Your task to perform on an android device: What's on my calendar tomorrow? Image 0: 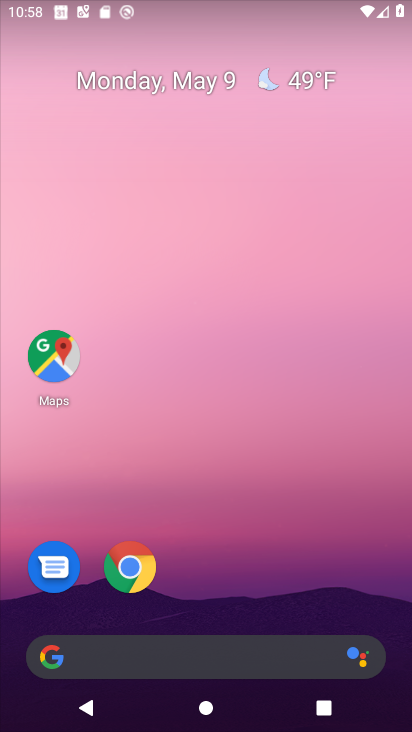
Step 0: drag from (160, 637) to (255, 204)
Your task to perform on an android device: What's on my calendar tomorrow? Image 1: 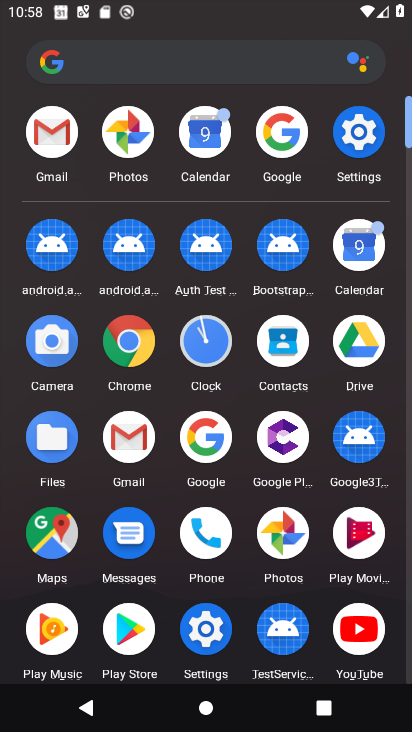
Step 1: click (362, 253)
Your task to perform on an android device: What's on my calendar tomorrow? Image 2: 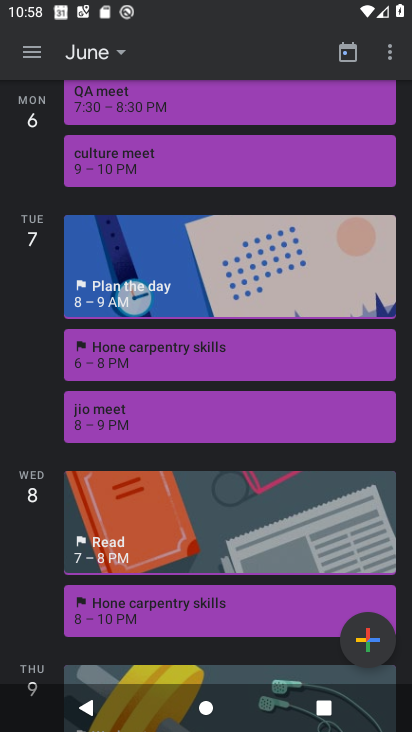
Step 2: click (93, 51)
Your task to perform on an android device: What's on my calendar tomorrow? Image 3: 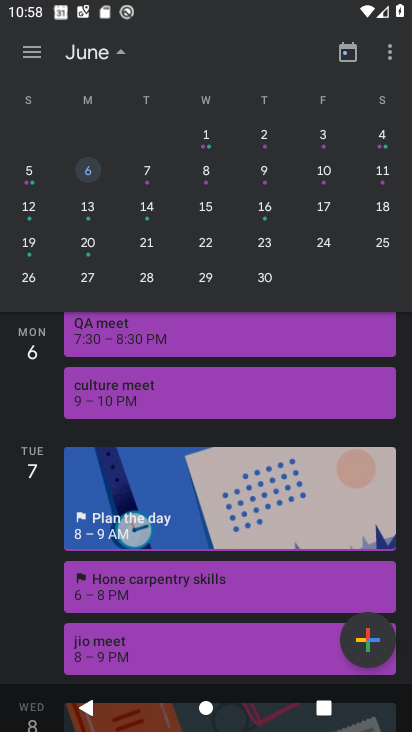
Step 3: drag from (72, 199) to (250, 209)
Your task to perform on an android device: What's on my calendar tomorrow? Image 4: 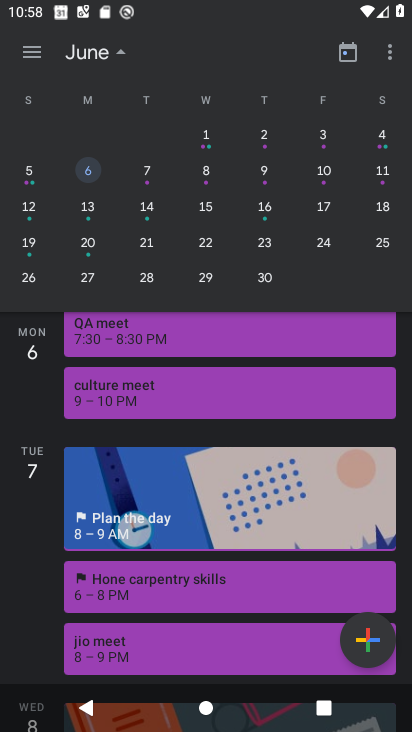
Step 4: drag from (51, 247) to (287, 253)
Your task to perform on an android device: What's on my calendar tomorrow? Image 5: 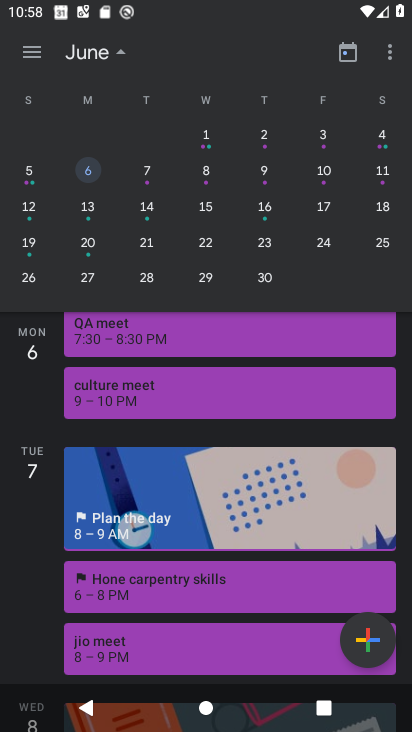
Step 5: drag from (47, 216) to (366, 236)
Your task to perform on an android device: What's on my calendar tomorrow? Image 6: 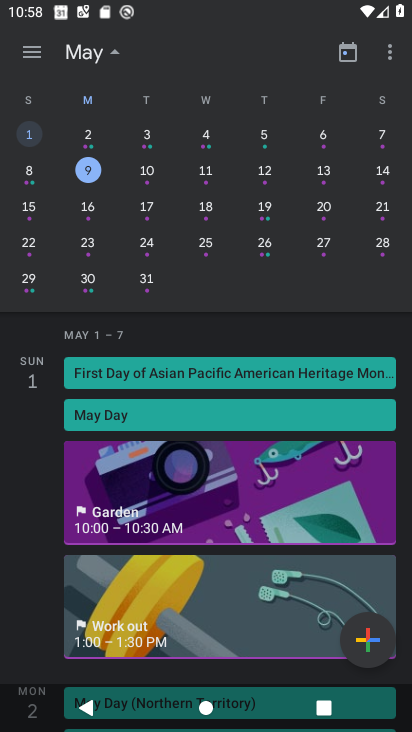
Step 6: click (210, 176)
Your task to perform on an android device: What's on my calendar tomorrow? Image 7: 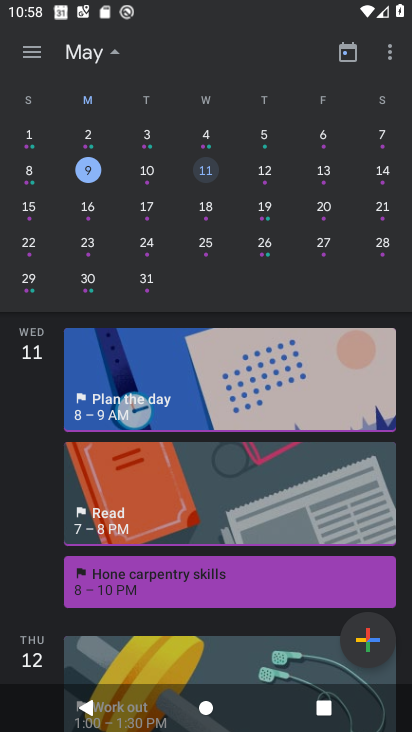
Step 7: drag from (191, 390) to (154, 664)
Your task to perform on an android device: What's on my calendar tomorrow? Image 8: 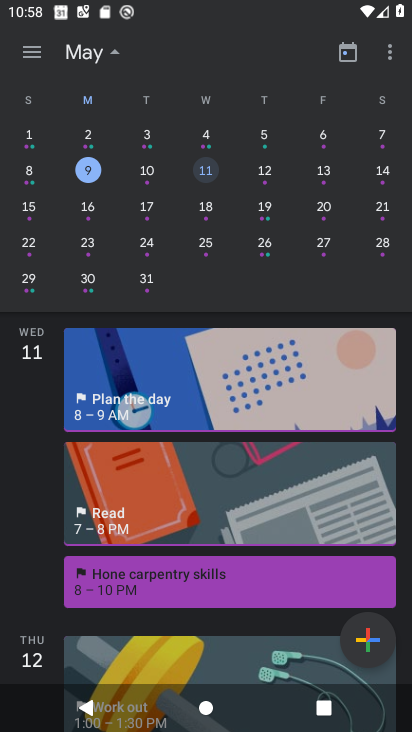
Step 8: drag from (226, 381) to (218, 731)
Your task to perform on an android device: What's on my calendar tomorrow? Image 9: 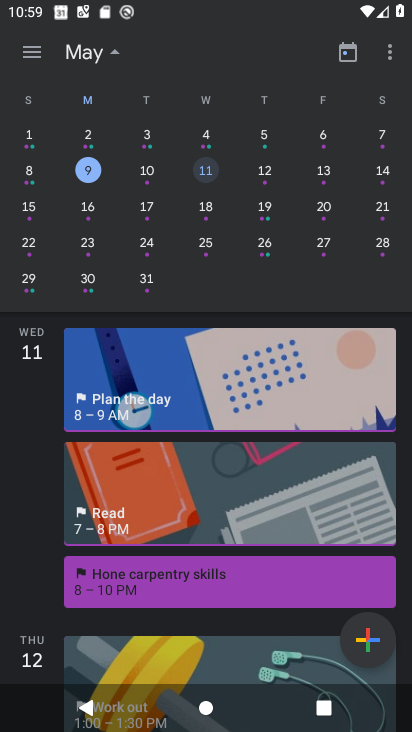
Step 9: click (149, 173)
Your task to perform on an android device: What's on my calendar tomorrow? Image 10: 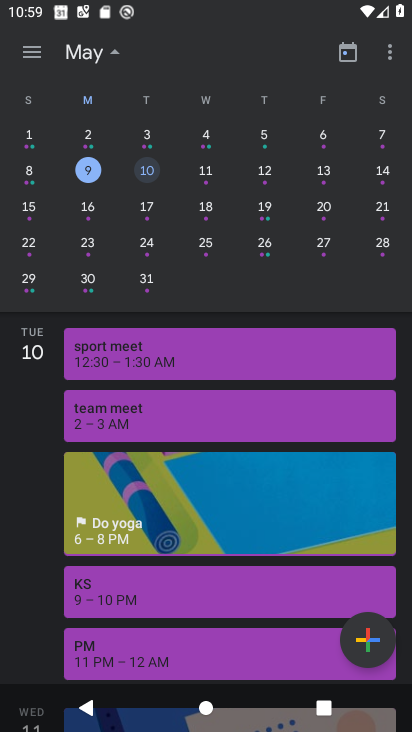
Step 10: task complete